Your task to perform on an android device: Open location settings Image 0: 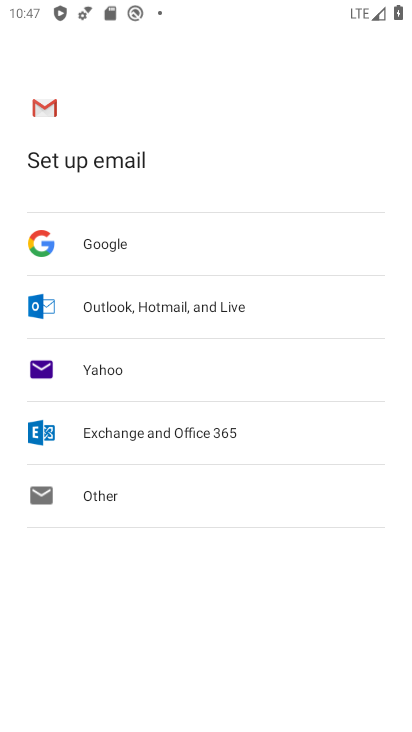
Step 0: press home button
Your task to perform on an android device: Open location settings Image 1: 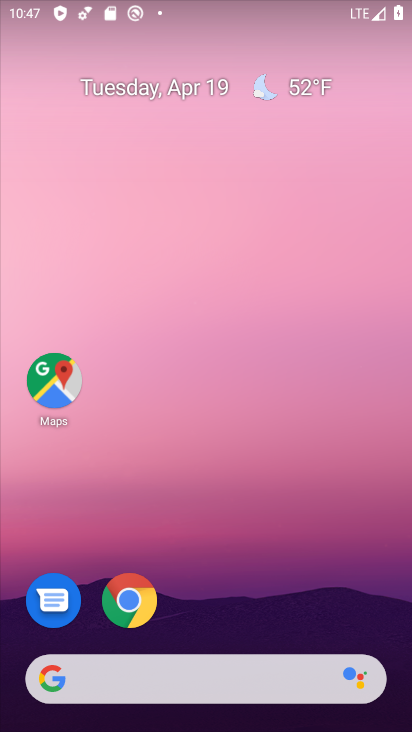
Step 1: drag from (299, 618) to (285, 146)
Your task to perform on an android device: Open location settings Image 2: 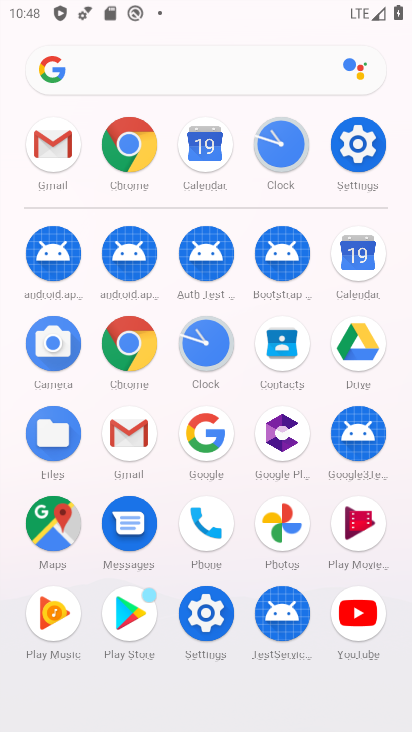
Step 2: click (353, 149)
Your task to perform on an android device: Open location settings Image 3: 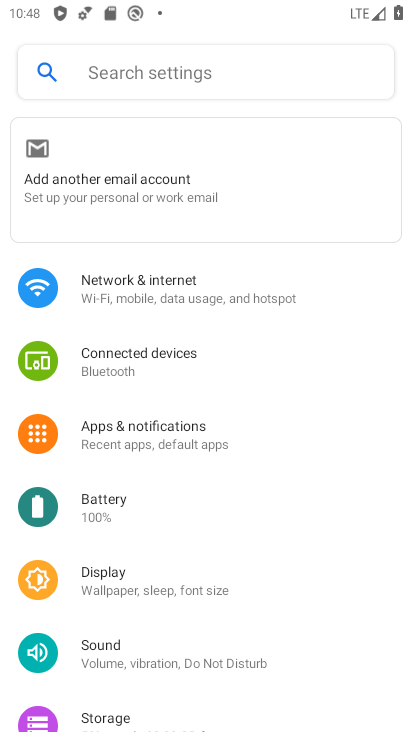
Step 3: drag from (116, 650) to (190, 197)
Your task to perform on an android device: Open location settings Image 4: 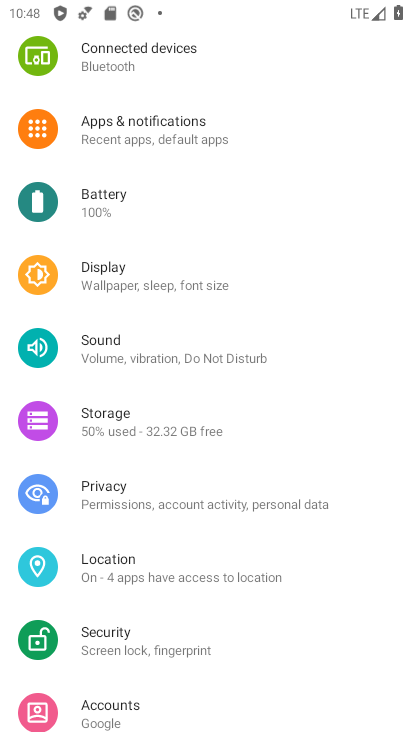
Step 4: click (140, 565)
Your task to perform on an android device: Open location settings Image 5: 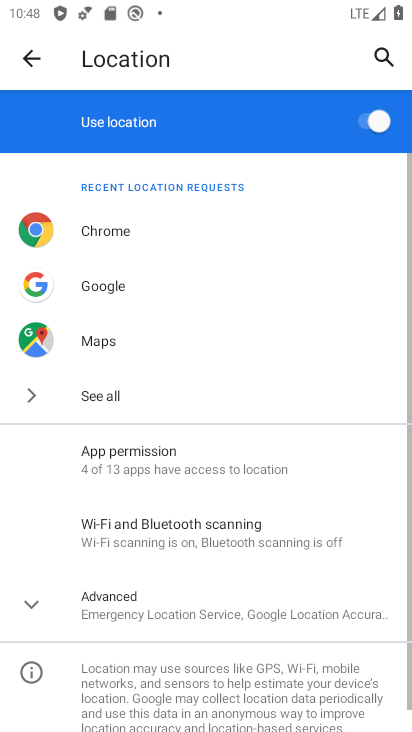
Step 5: task complete